Your task to perform on an android device: delete a single message in the gmail app Image 0: 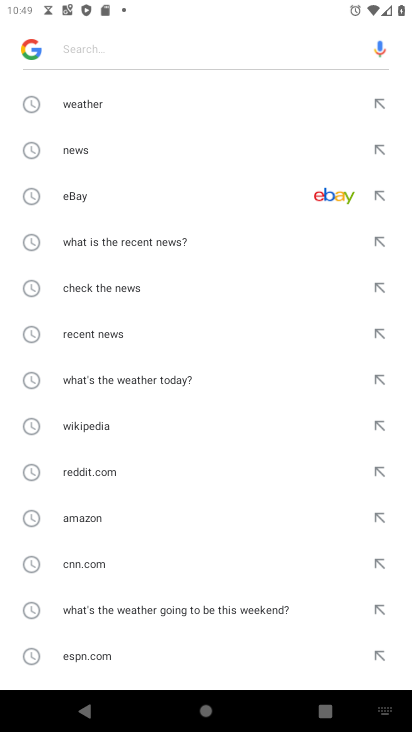
Step 0: press back button
Your task to perform on an android device: delete a single message in the gmail app Image 1: 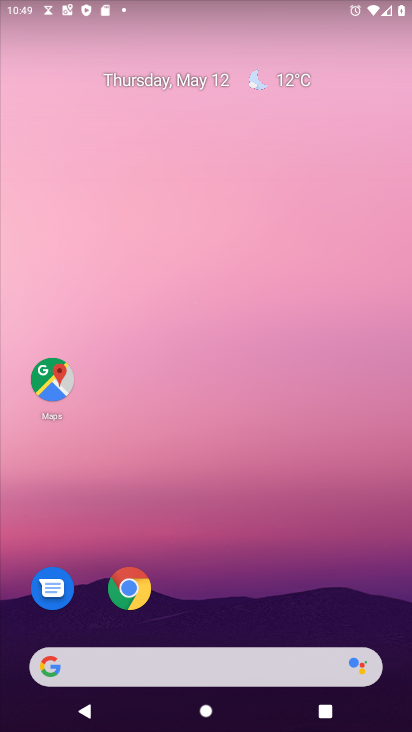
Step 1: drag from (258, 603) to (232, 115)
Your task to perform on an android device: delete a single message in the gmail app Image 2: 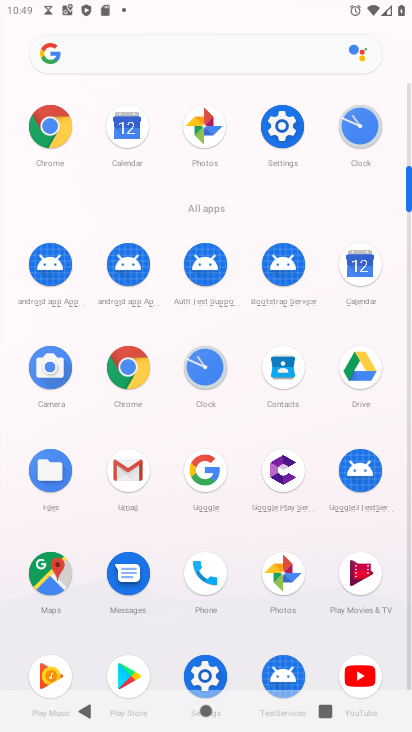
Step 2: click (127, 472)
Your task to perform on an android device: delete a single message in the gmail app Image 3: 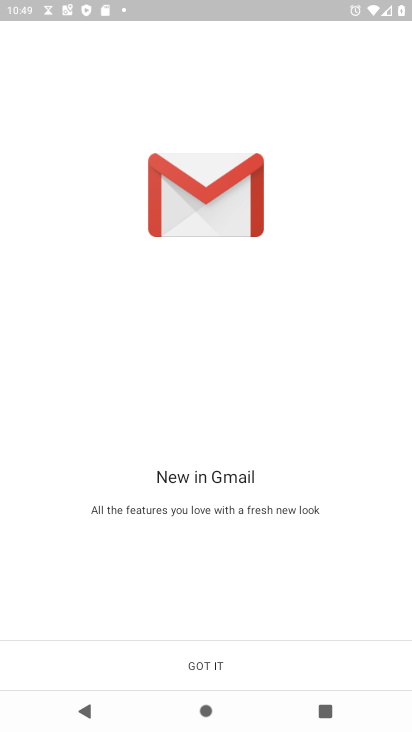
Step 3: click (200, 658)
Your task to perform on an android device: delete a single message in the gmail app Image 4: 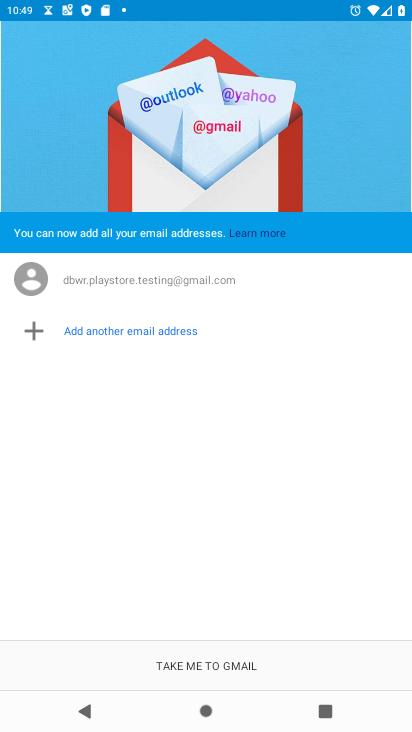
Step 4: click (194, 662)
Your task to perform on an android device: delete a single message in the gmail app Image 5: 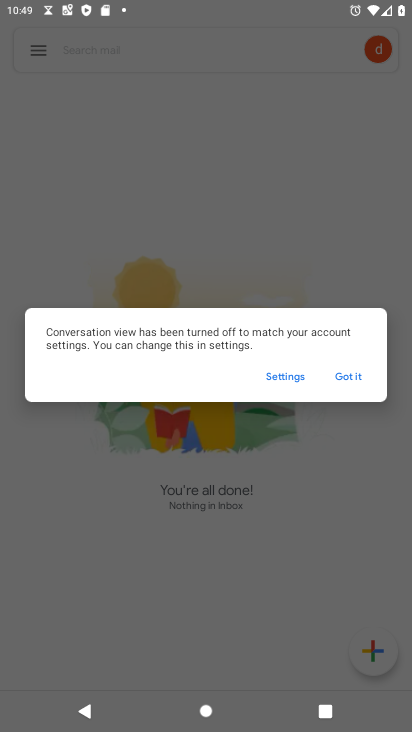
Step 5: click (352, 372)
Your task to perform on an android device: delete a single message in the gmail app Image 6: 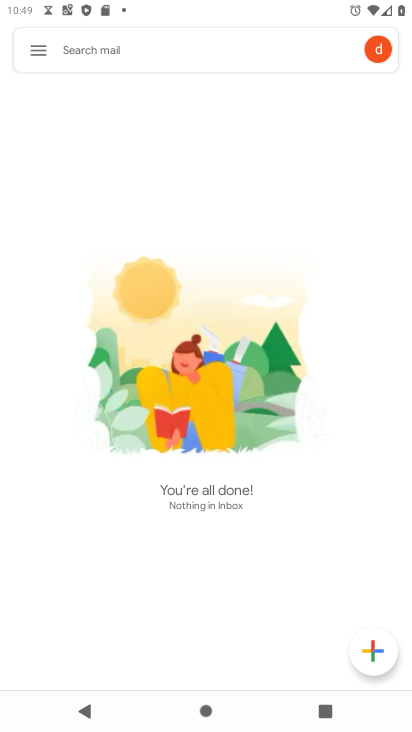
Step 6: click (31, 46)
Your task to perform on an android device: delete a single message in the gmail app Image 7: 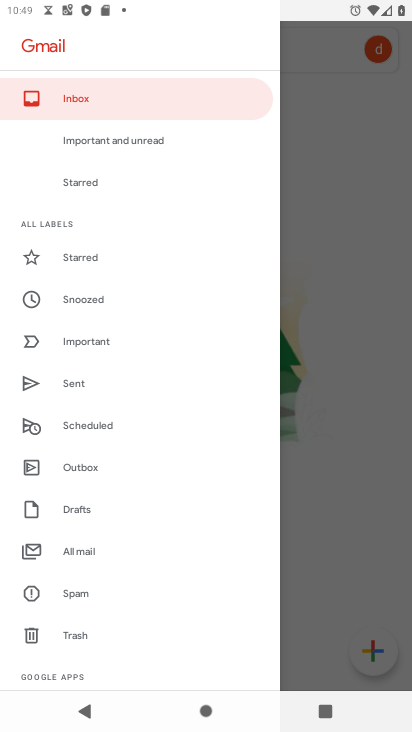
Step 7: click (84, 551)
Your task to perform on an android device: delete a single message in the gmail app Image 8: 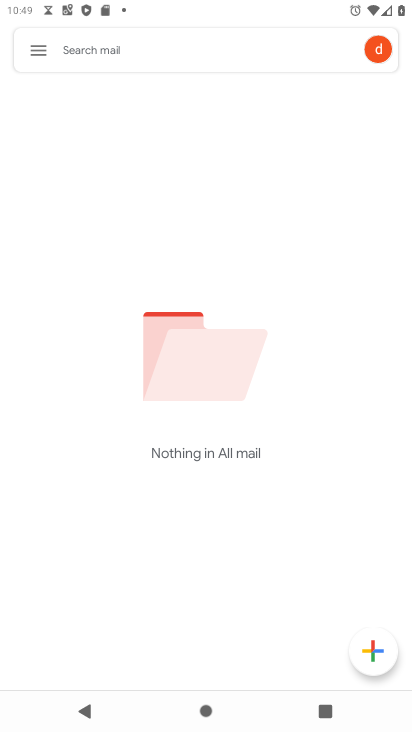
Step 8: task complete